Your task to perform on an android device: Open the web browser Image 0: 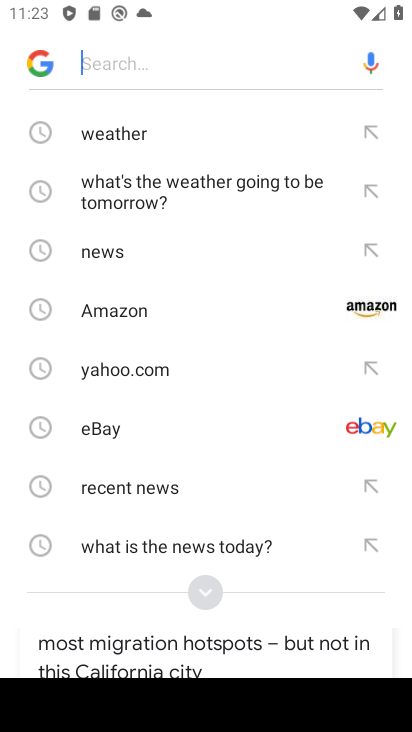
Step 0: press home button
Your task to perform on an android device: Open the web browser Image 1: 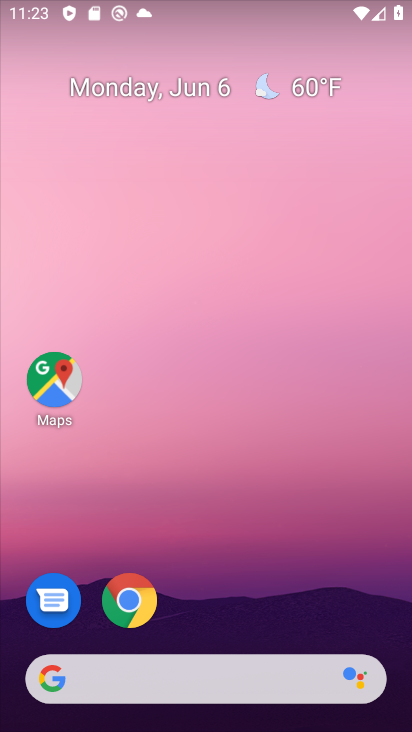
Step 1: click (142, 603)
Your task to perform on an android device: Open the web browser Image 2: 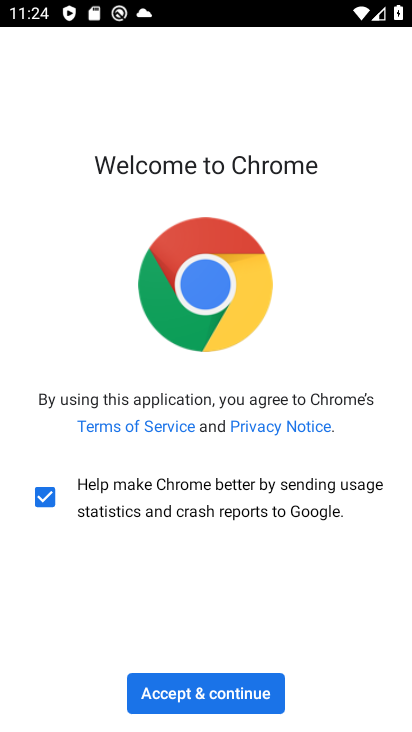
Step 2: click (200, 689)
Your task to perform on an android device: Open the web browser Image 3: 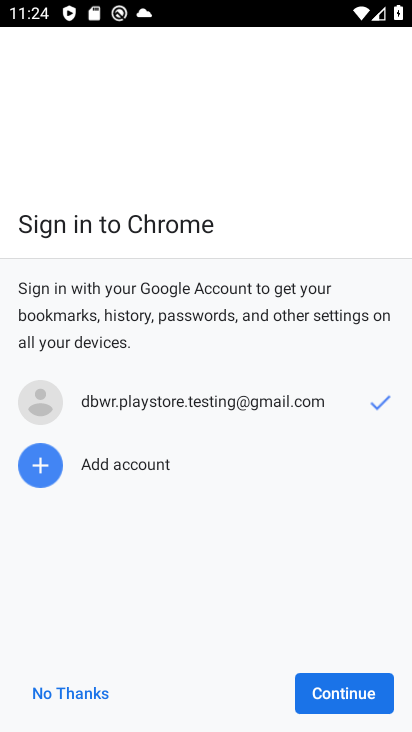
Step 3: click (339, 685)
Your task to perform on an android device: Open the web browser Image 4: 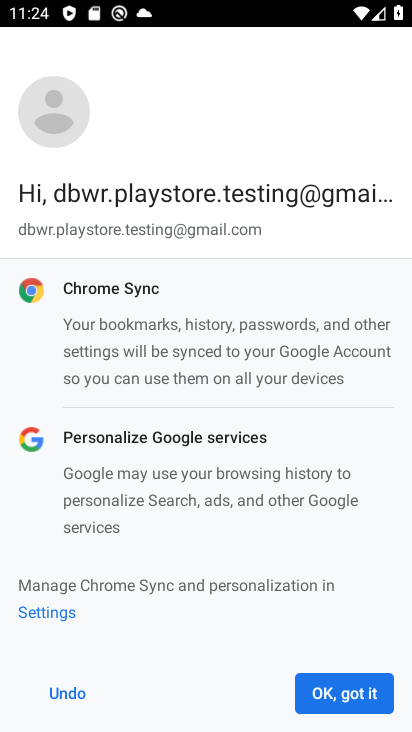
Step 4: click (339, 692)
Your task to perform on an android device: Open the web browser Image 5: 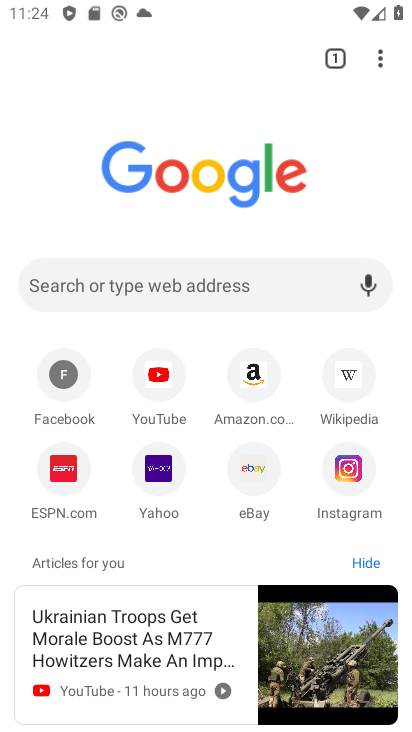
Step 5: task complete